Your task to perform on an android device: turn on showing notifications on the lock screen Image 0: 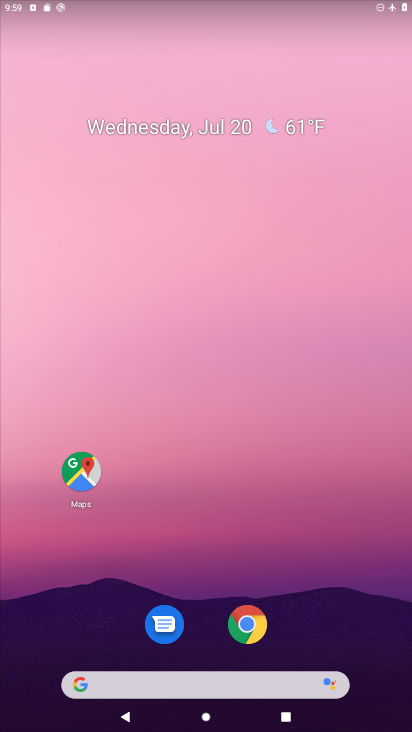
Step 0: drag from (165, 479) to (192, 79)
Your task to perform on an android device: turn on showing notifications on the lock screen Image 1: 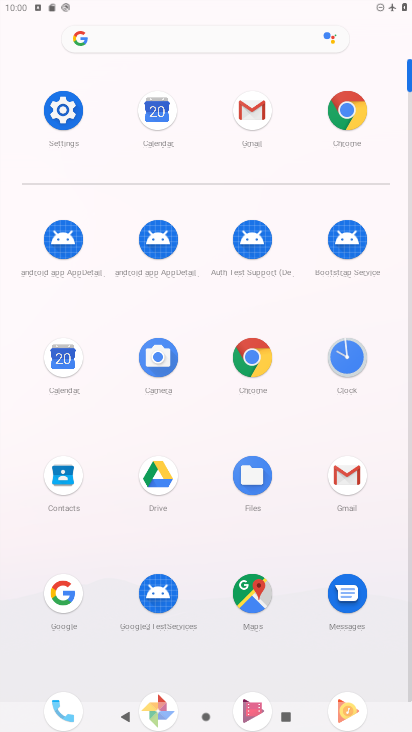
Step 1: click (53, 119)
Your task to perform on an android device: turn on showing notifications on the lock screen Image 2: 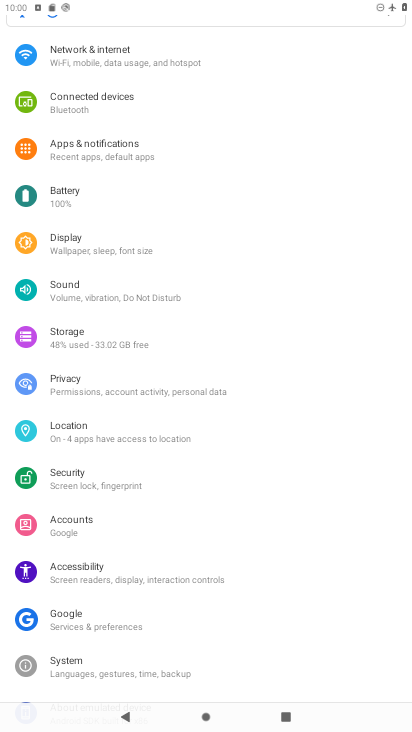
Step 2: click (153, 159)
Your task to perform on an android device: turn on showing notifications on the lock screen Image 3: 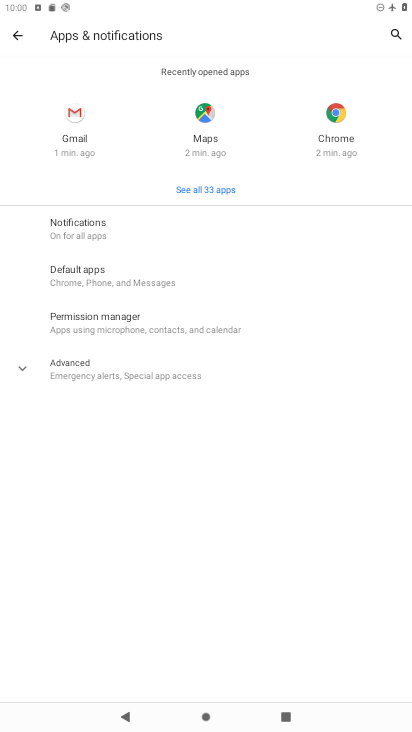
Step 3: click (133, 234)
Your task to perform on an android device: turn on showing notifications on the lock screen Image 4: 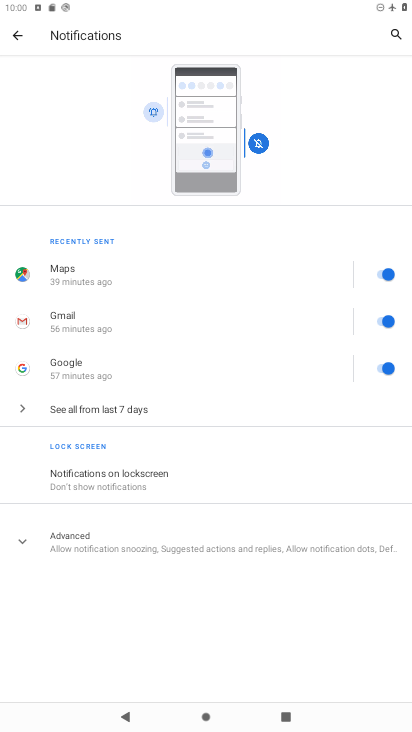
Step 4: click (205, 483)
Your task to perform on an android device: turn on showing notifications on the lock screen Image 5: 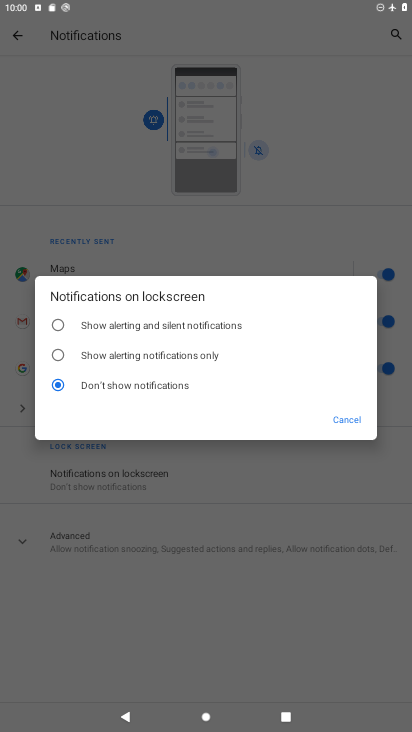
Step 5: click (118, 329)
Your task to perform on an android device: turn on showing notifications on the lock screen Image 6: 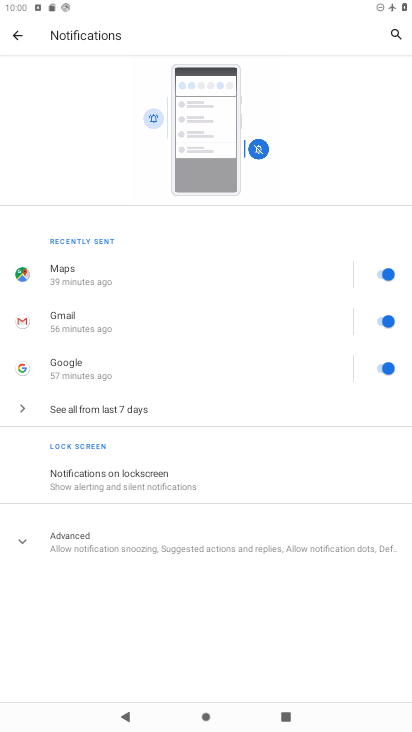
Step 6: task complete